Your task to perform on an android device: open app "Microsoft Excel" (install if not already installed) Image 0: 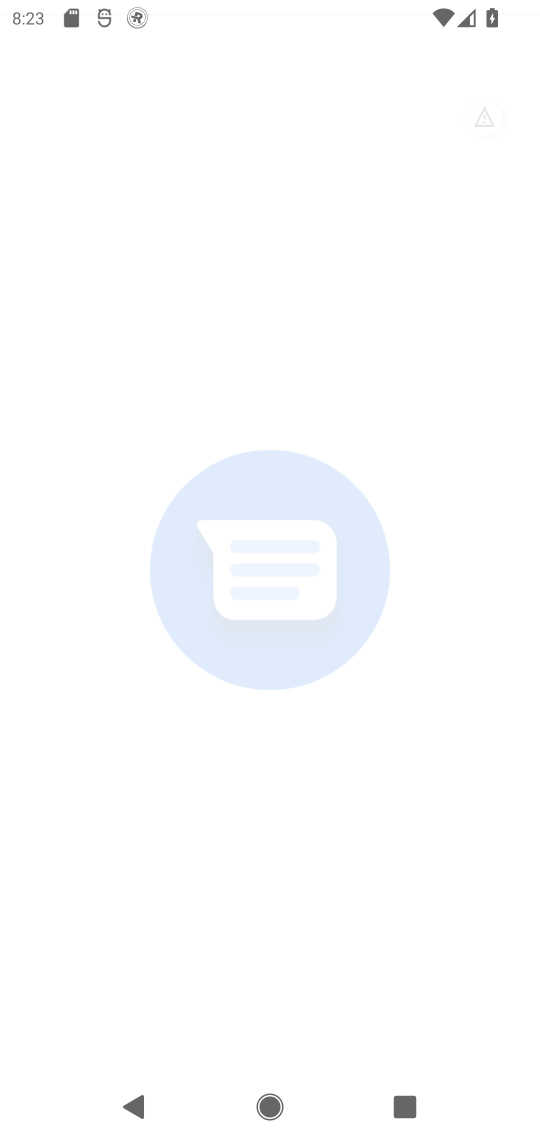
Step 0: press home button
Your task to perform on an android device: open app "Microsoft Excel" (install if not already installed) Image 1: 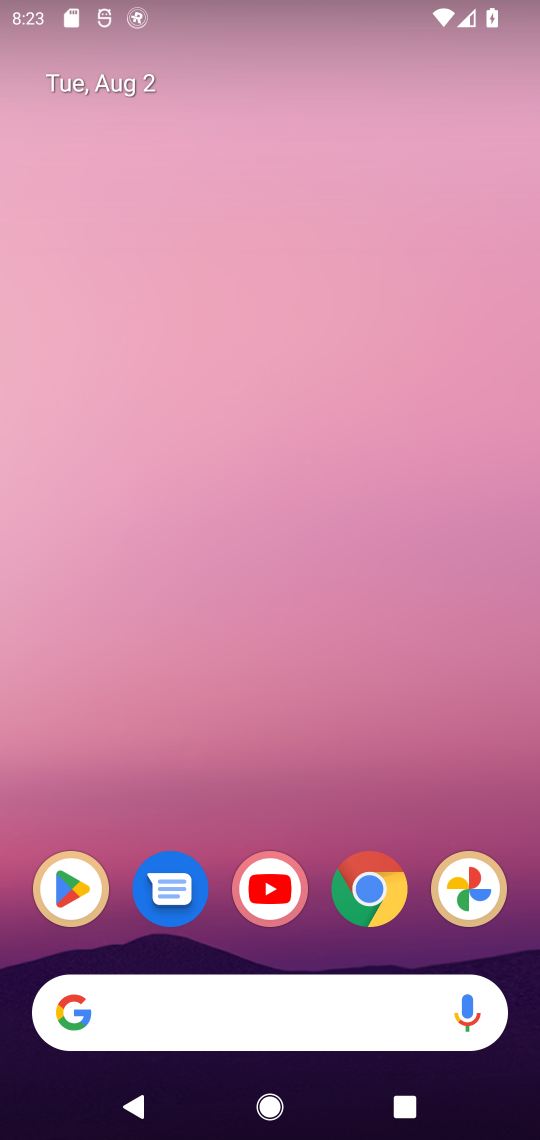
Step 1: click (77, 877)
Your task to perform on an android device: open app "Microsoft Excel" (install if not already installed) Image 2: 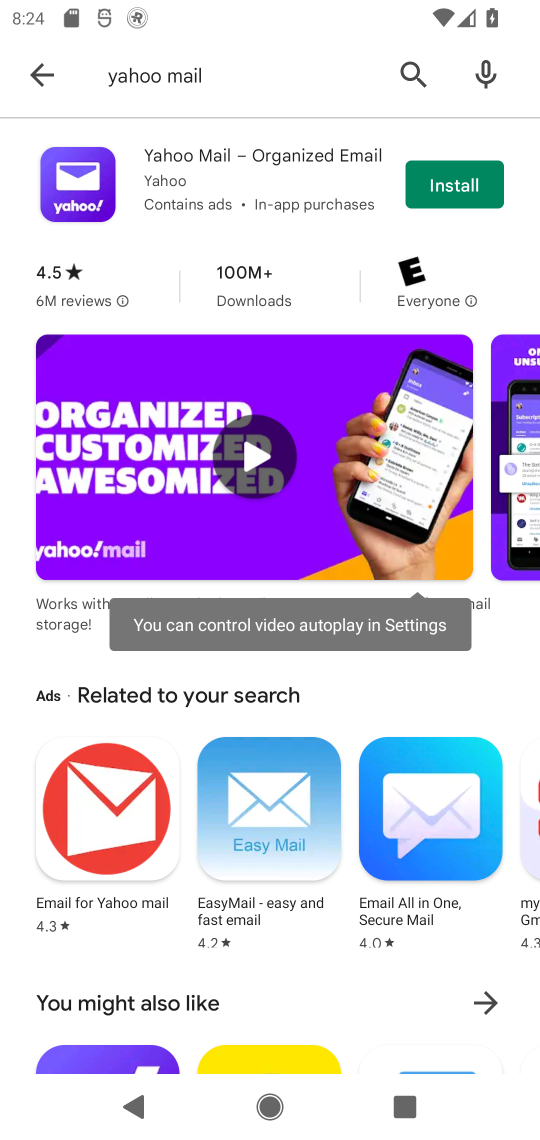
Step 2: click (400, 62)
Your task to perform on an android device: open app "Microsoft Excel" (install if not already installed) Image 3: 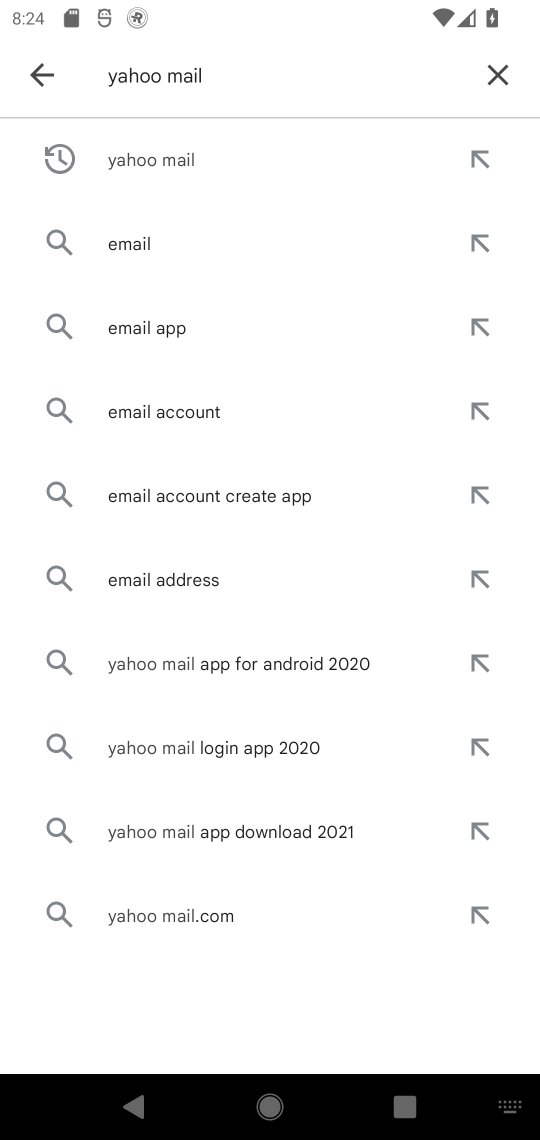
Step 3: click (494, 84)
Your task to perform on an android device: open app "Microsoft Excel" (install if not already installed) Image 4: 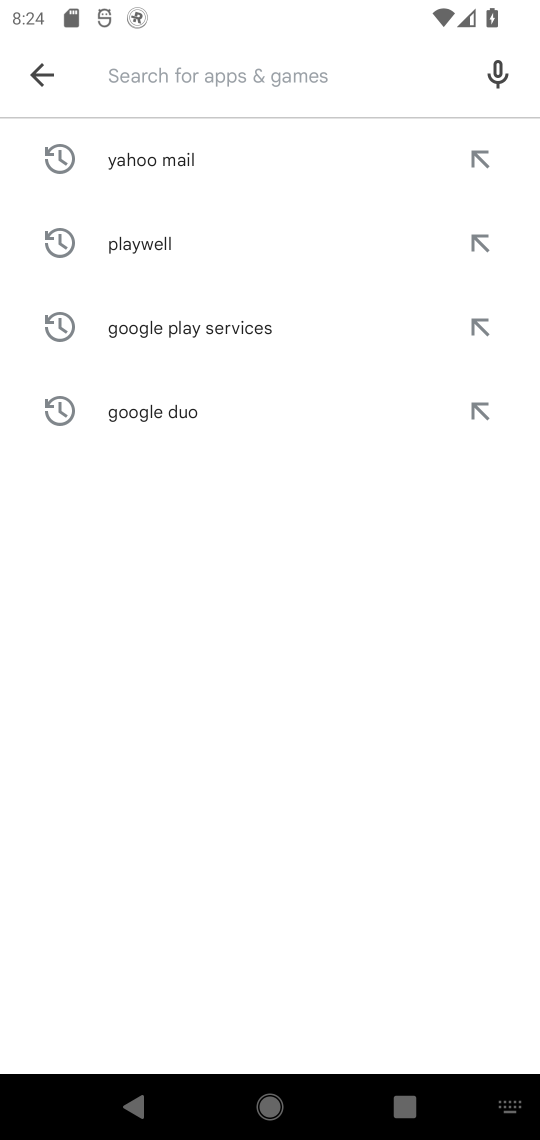
Step 4: type "Microsoft Excel"
Your task to perform on an android device: open app "Microsoft Excel" (install if not already installed) Image 5: 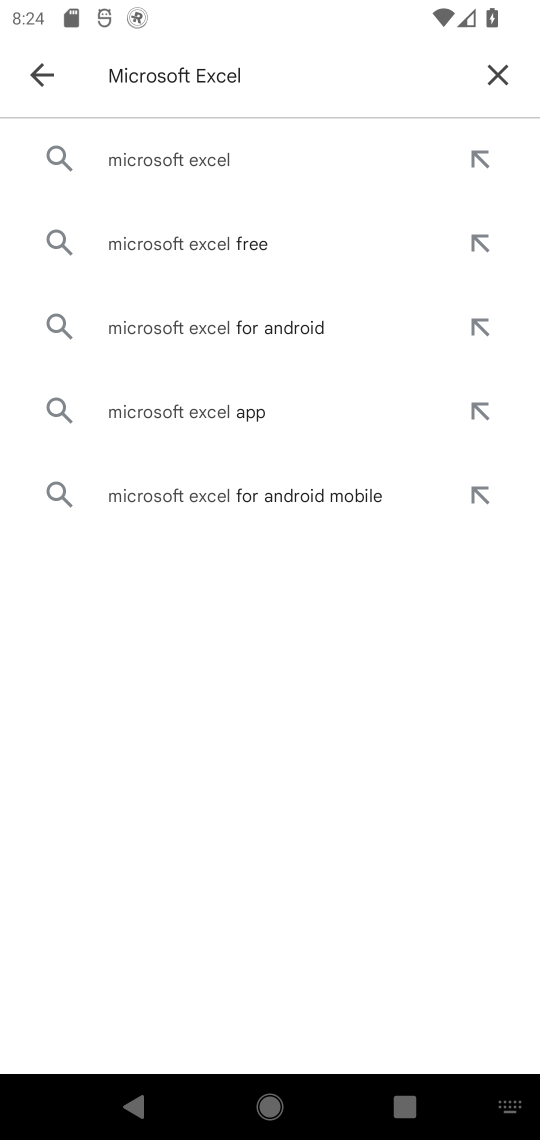
Step 5: click (204, 149)
Your task to perform on an android device: open app "Microsoft Excel" (install if not already installed) Image 6: 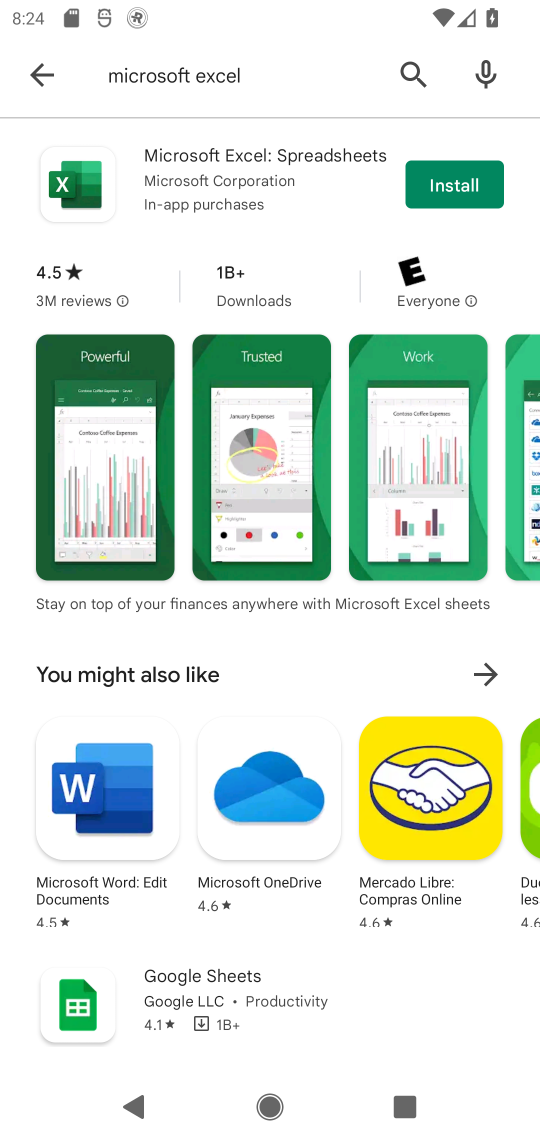
Step 6: click (465, 183)
Your task to perform on an android device: open app "Microsoft Excel" (install if not already installed) Image 7: 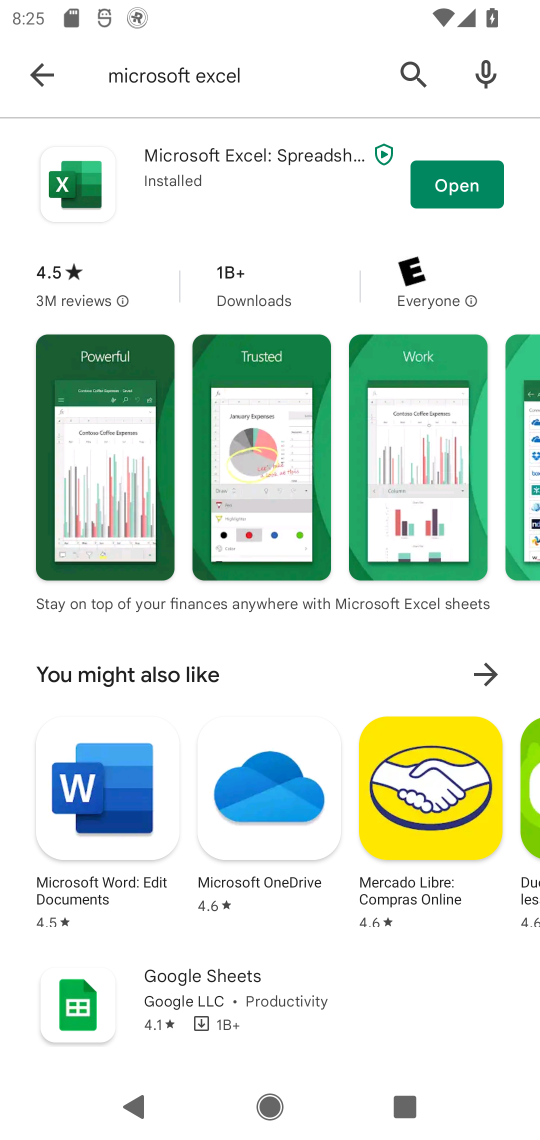
Step 7: click (437, 188)
Your task to perform on an android device: open app "Microsoft Excel" (install if not already installed) Image 8: 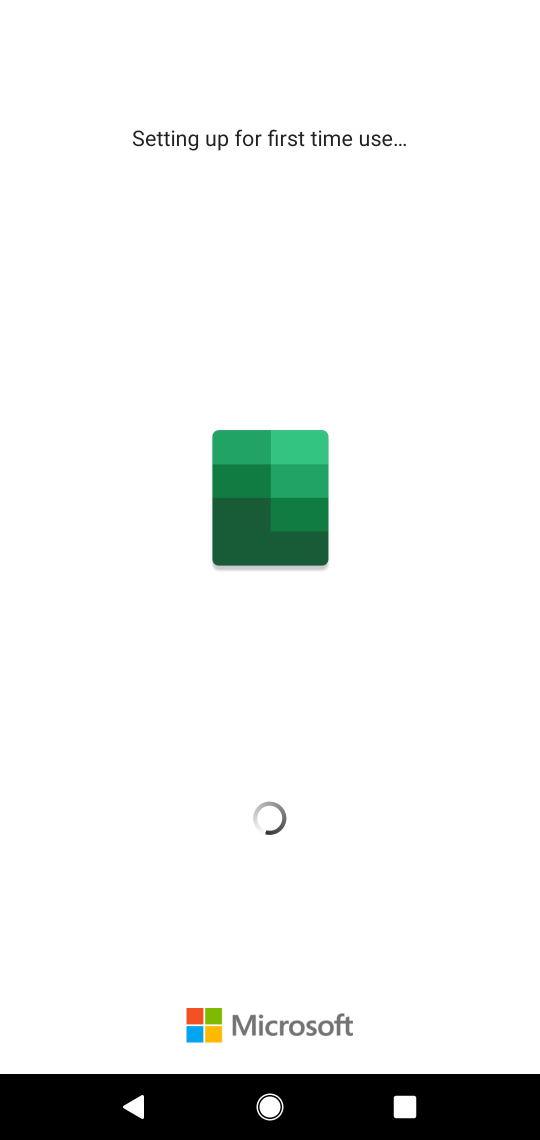
Step 8: task complete